Your task to perform on an android device: Go to network settings Image 0: 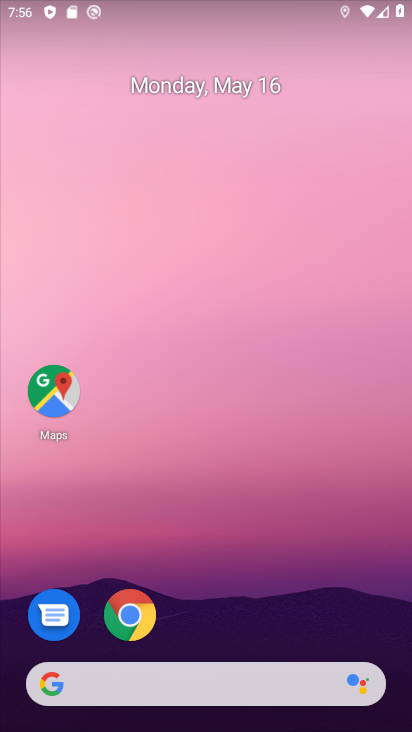
Step 0: drag from (195, 18) to (271, 519)
Your task to perform on an android device: Go to network settings Image 1: 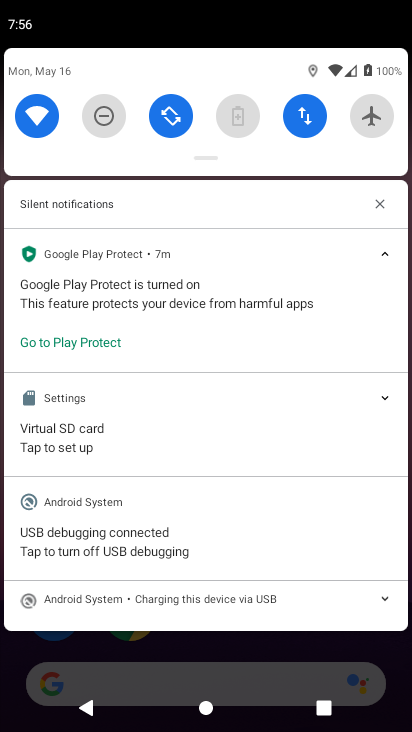
Step 1: click (313, 123)
Your task to perform on an android device: Go to network settings Image 2: 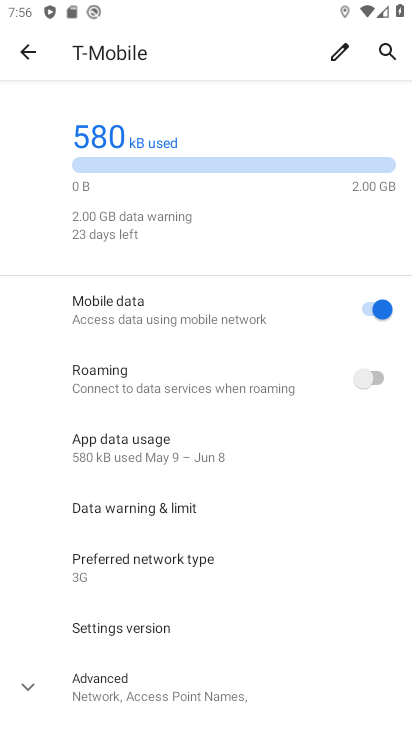
Step 2: task complete